Your task to perform on an android device: Open calendar and show me the fourth week of next month Image 0: 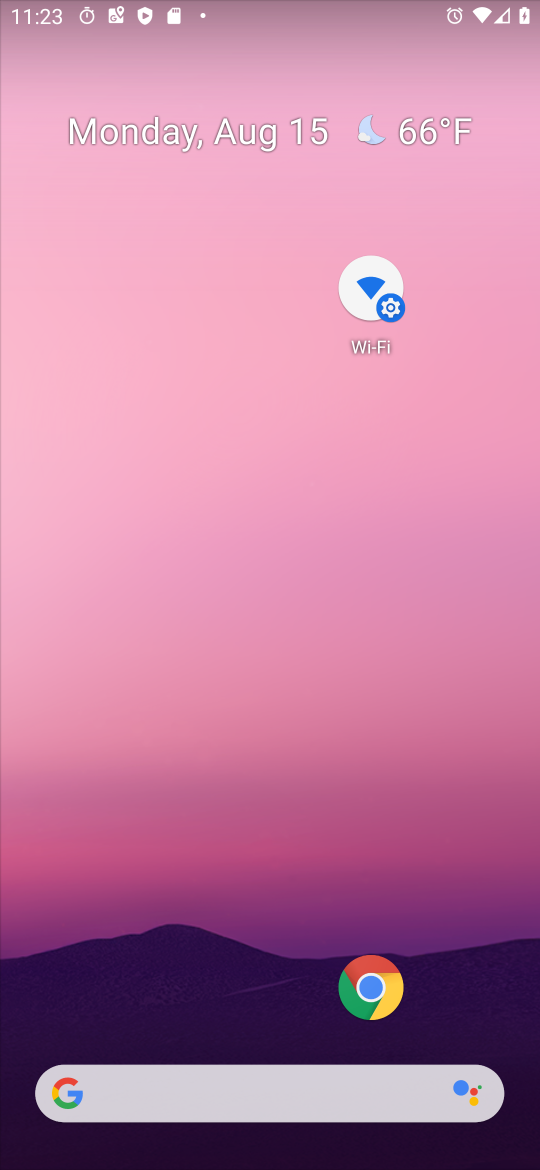
Step 0: drag from (285, 1033) to (271, 46)
Your task to perform on an android device: Open calendar and show me the fourth week of next month Image 1: 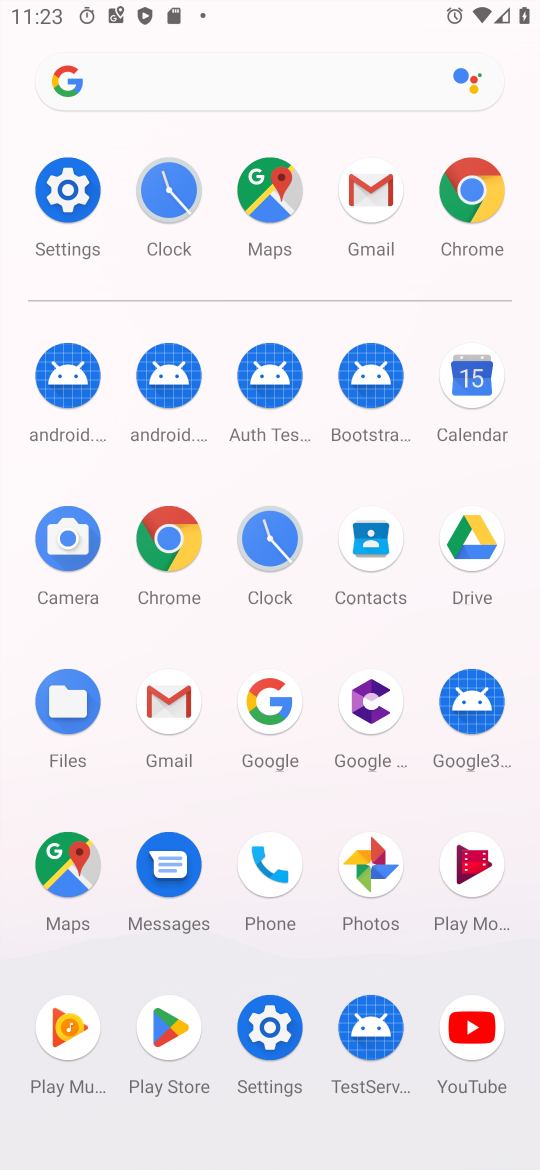
Step 1: click (470, 411)
Your task to perform on an android device: Open calendar and show me the fourth week of next month Image 2: 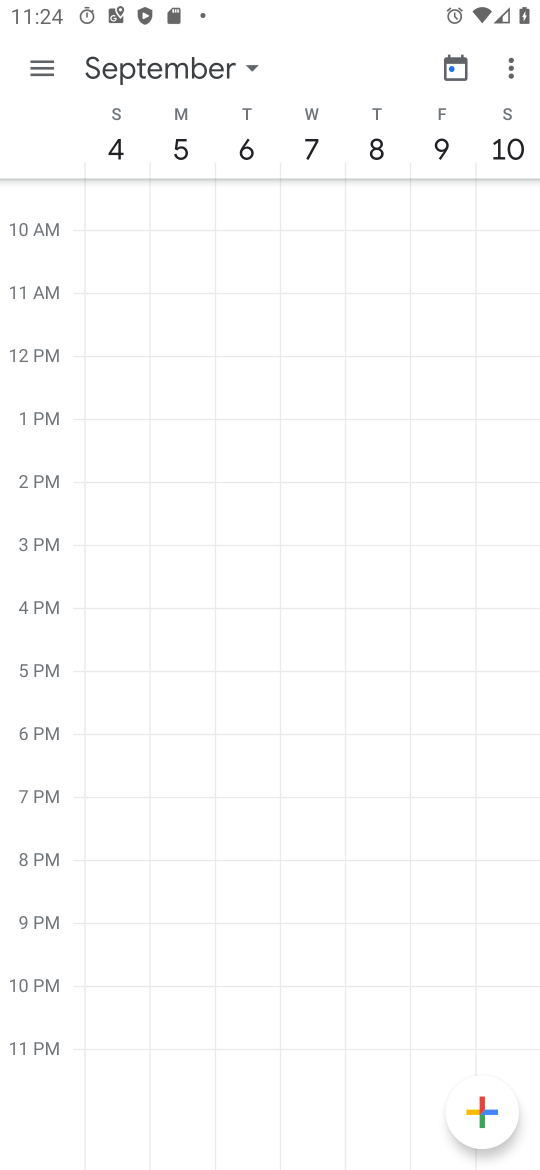
Step 2: task complete